Your task to perform on an android device: turn off sleep mode Image 0: 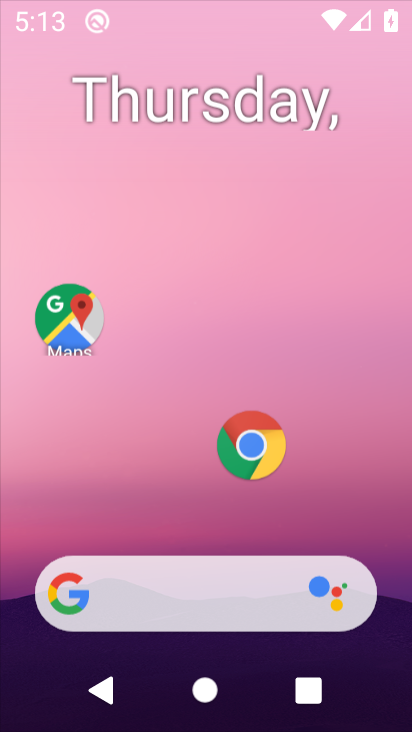
Step 0: click (145, 53)
Your task to perform on an android device: turn off sleep mode Image 1: 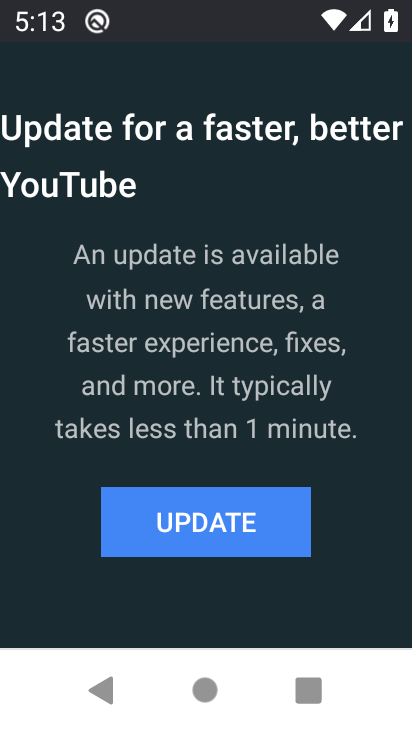
Step 1: task complete